Your task to perform on an android device: set the timer Image 0: 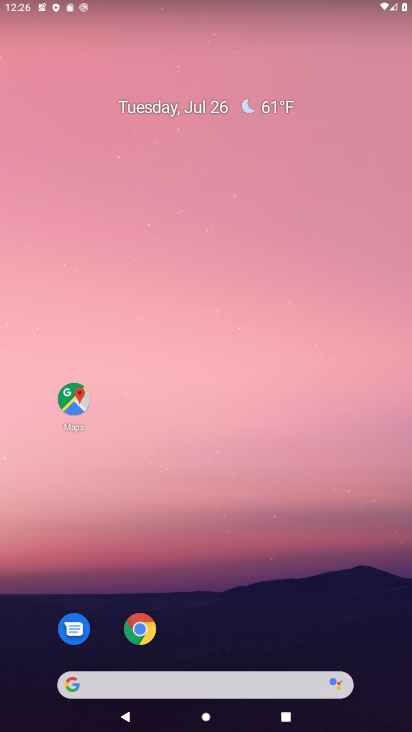
Step 0: drag from (189, 639) to (189, 52)
Your task to perform on an android device: set the timer Image 1: 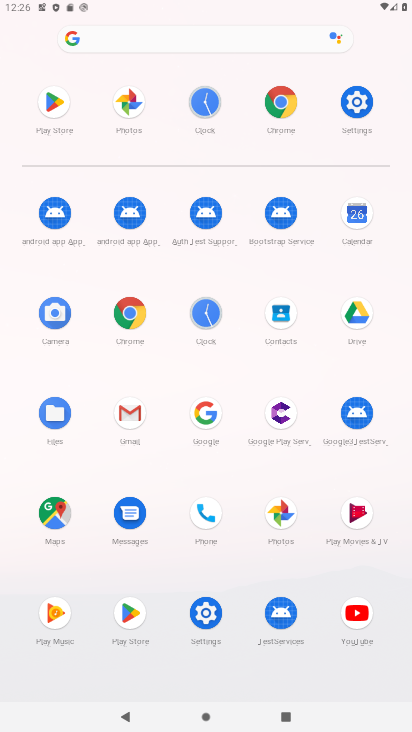
Step 1: click (204, 312)
Your task to perform on an android device: set the timer Image 2: 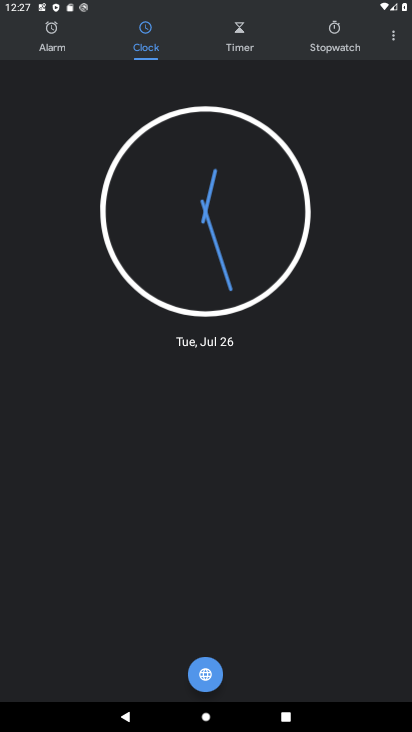
Step 2: click (251, 42)
Your task to perform on an android device: set the timer Image 3: 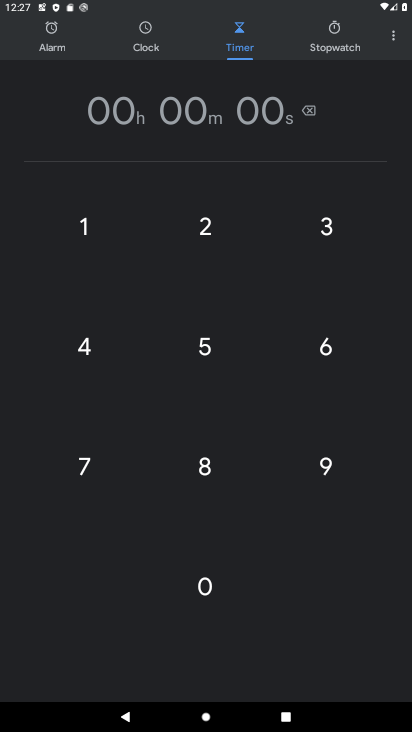
Step 3: type "11"
Your task to perform on an android device: set the timer Image 4: 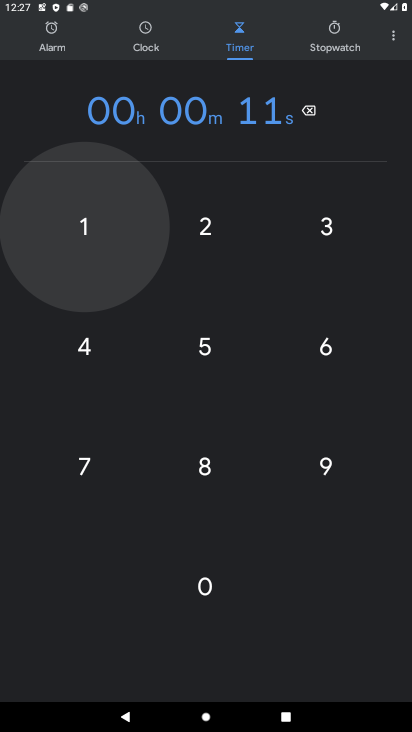
Step 4: type ""
Your task to perform on an android device: set the timer Image 5: 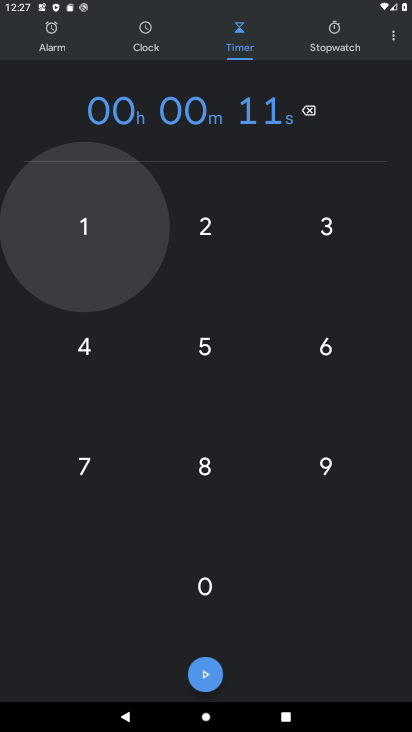
Step 5: click (200, 686)
Your task to perform on an android device: set the timer Image 6: 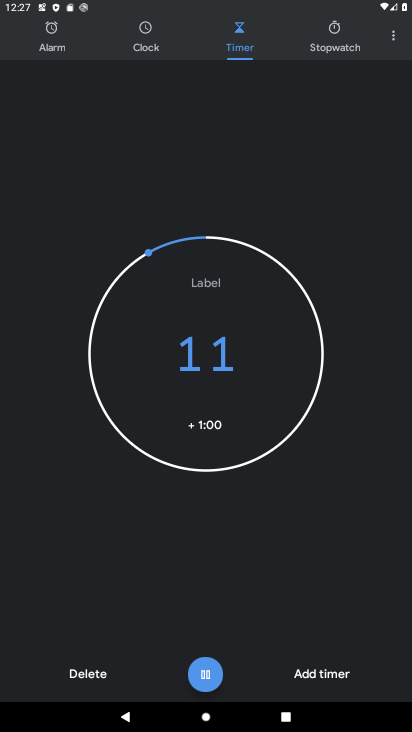
Step 6: task complete